Your task to perform on an android device: change the upload size in google photos Image 0: 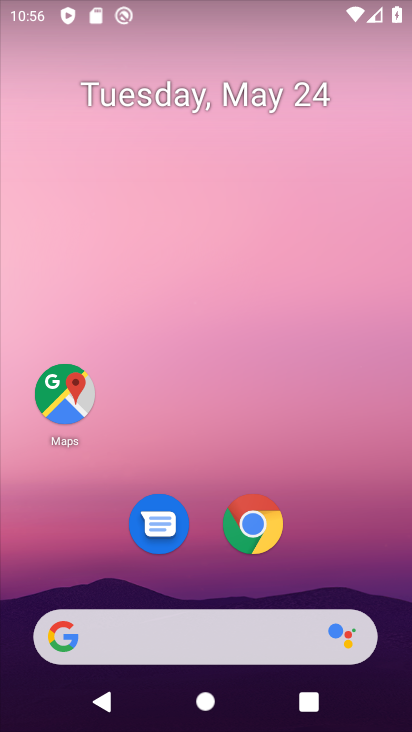
Step 0: drag from (218, 449) to (219, 2)
Your task to perform on an android device: change the upload size in google photos Image 1: 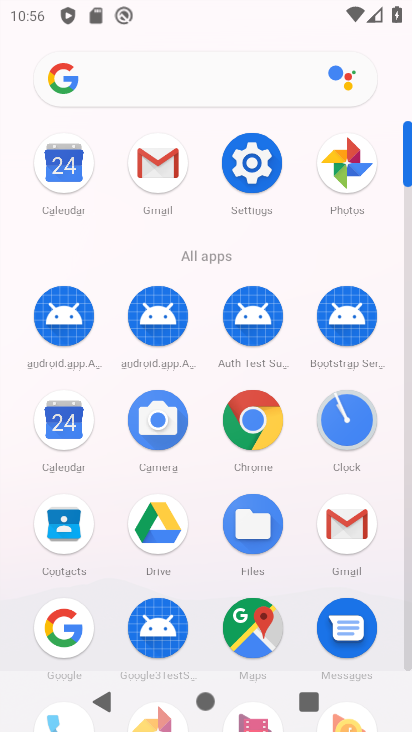
Step 1: click (344, 165)
Your task to perform on an android device: change the upload size in google photos Image 2: 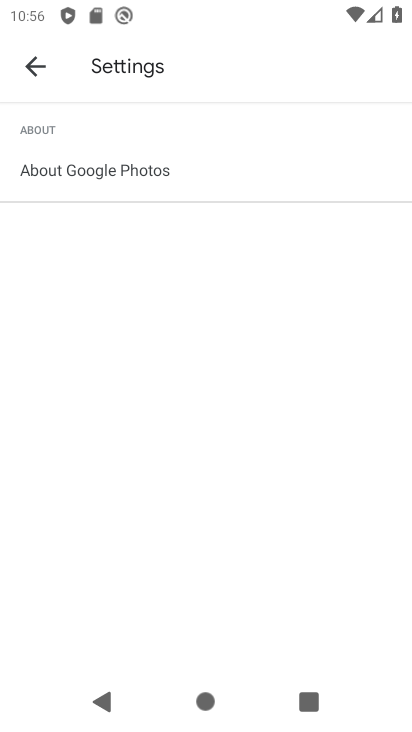
Step 2: click (28, 59)
Your task to perform on an android device: change the upload size in google photos Image 3: 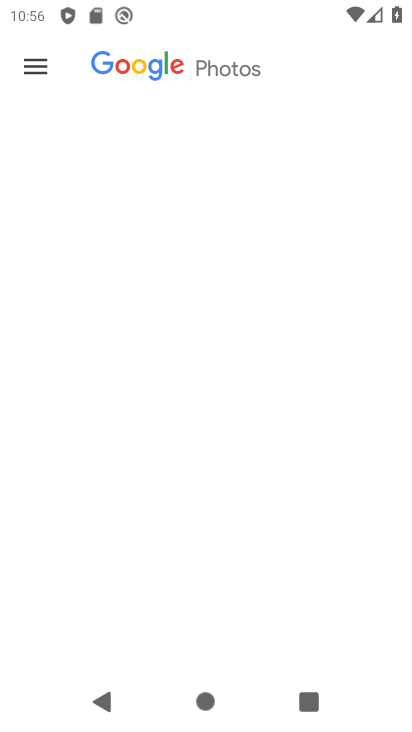
Step 3: click (28, 59)
Your task to perform on an android device: change the upload size in google photos Image 4: 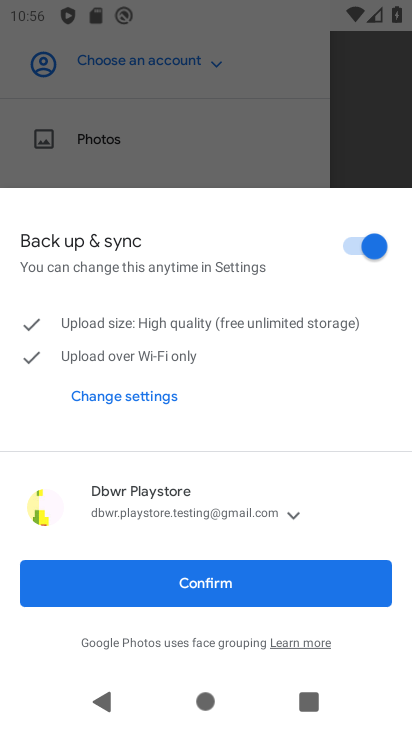
Step 4: click (195, 580)
Your task to perform on an android device: change the upload size in google photos Image 5: 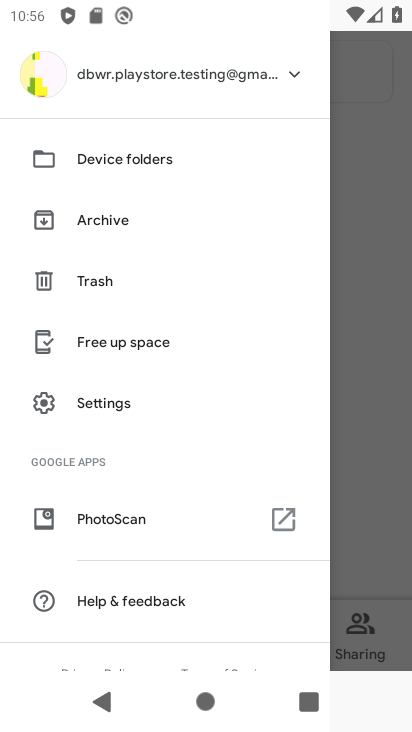
Step 5: click (122, 400)
Your task to perform on an android device: change the upload size in google photos Image 6: 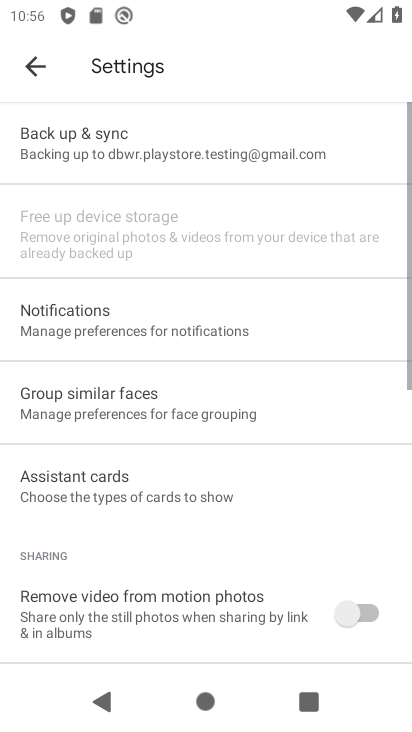
Step 6: click (155, 148)
Your task to perform on an android device: change the upload size in google photos Image 7: 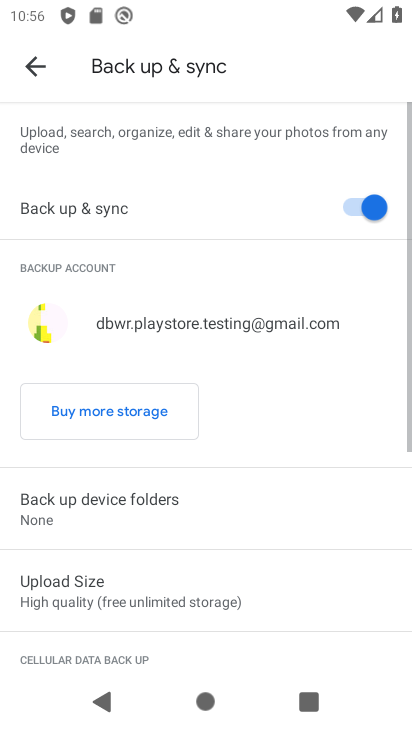
Step 7: click (187, 588)
Your task to perform on an android device: change the upload size in google photos Image 8: 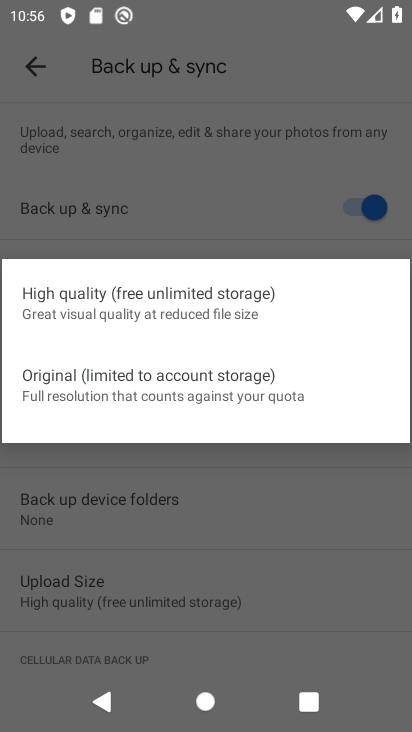
Step 8: click (217, 385)
Your task to perform on an android device: change the upload size in google photos Image 9: 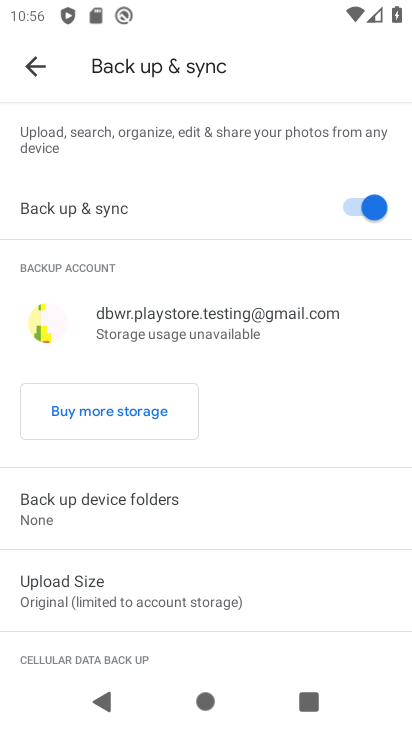
Step 9: task complete